Your task to perform on an android device: Open the stopwatch Image 0: 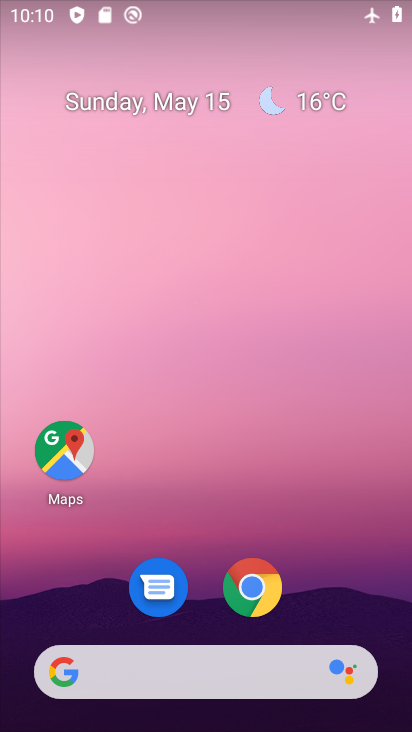
Step 0: drag from (327, 530) to (173, 5)
Your task to perform on an android device: Open the stopwatch Image 1: 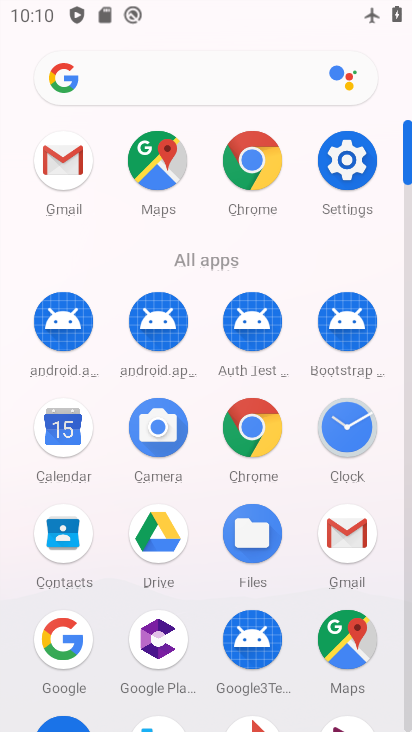
Step 1: drag from (18, 629) to (32, 307)
Your task to perform on an android device: Open the stopwatch Image 2: 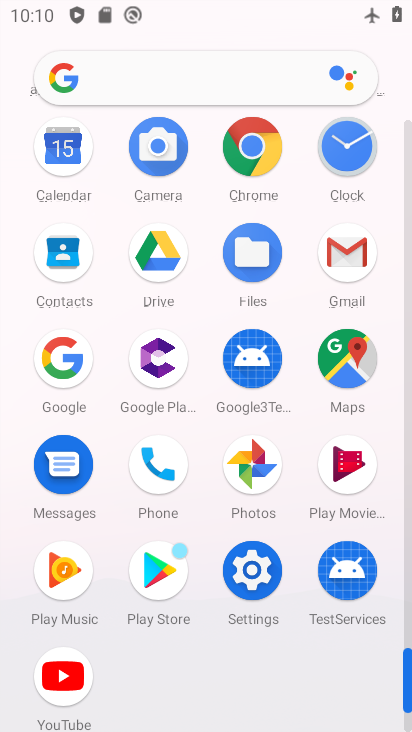
Step 2: click (0, 282)
Your task to perform on an android device: Open the stopwatch Image 3: 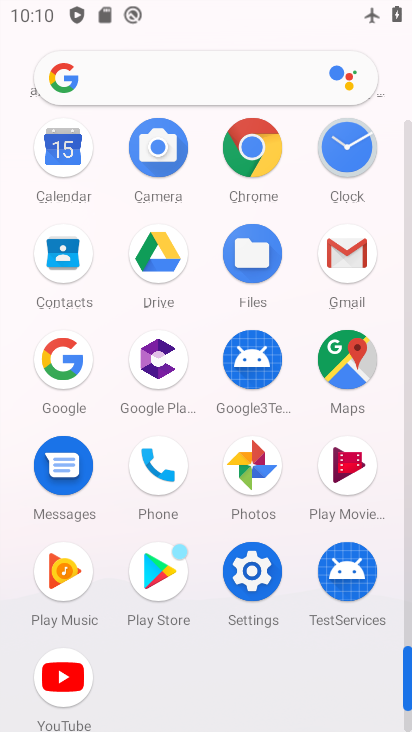
Step 3: click (346, 147)
Your task to perform on an android device: Open the stopwatch Image 4: 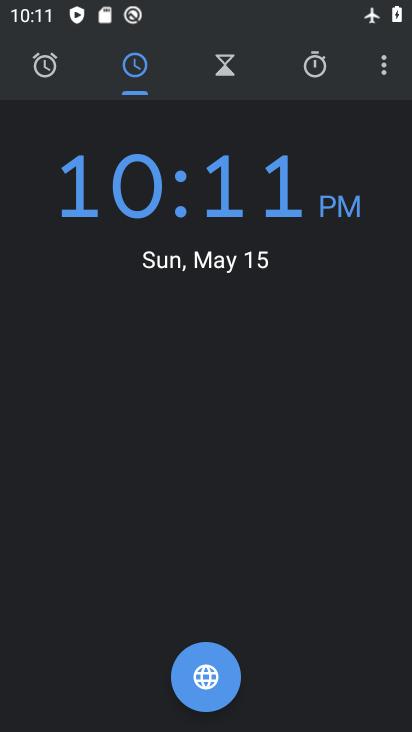
Step 4: click (312, 53)
Your task to perform on an android device: Open the stopwatch Image 5: 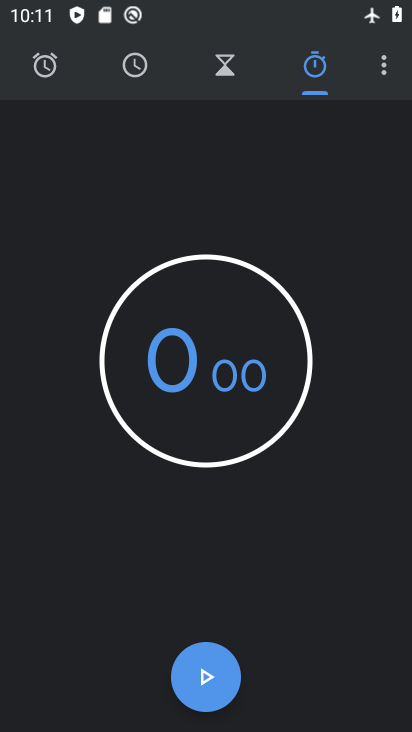
Step 5: task complete